Your task to perform on an android device: Search for sushi restaurants on Maps Image 0: 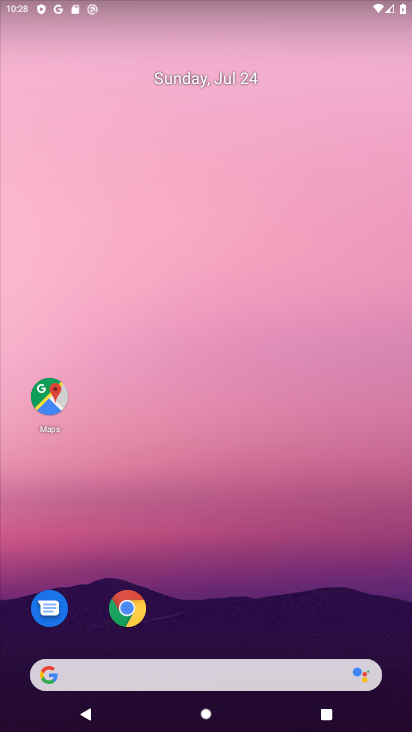
Step 0: click (40, 396)
Your task to perform on an android device: Search for sushi restaurants on Maps Image 1: 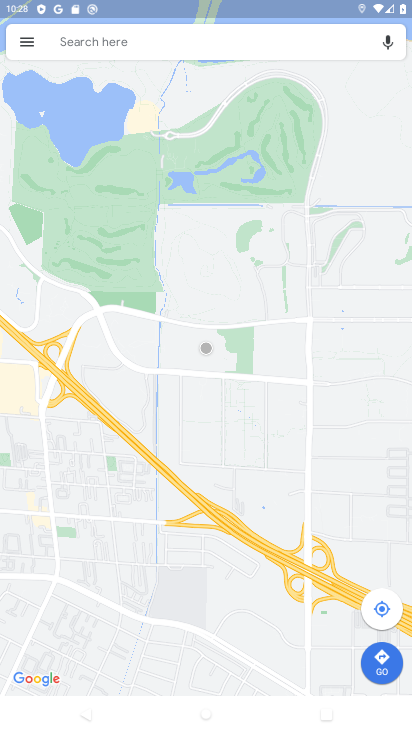
Step 1: click (101, 42)
Your task to perform on an android device: Search for sushi restaurants on Maps Image 2: 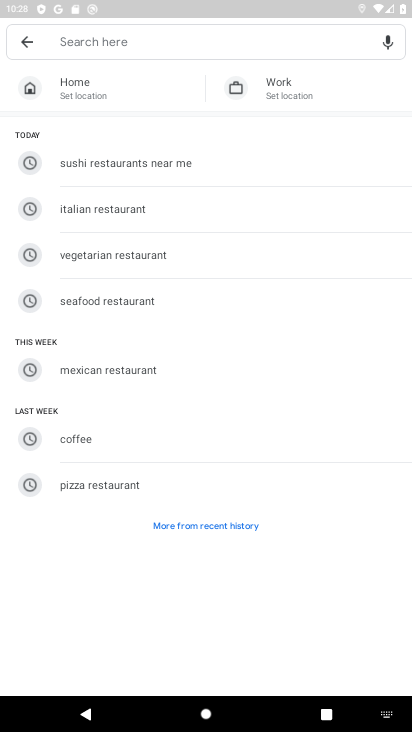
Step 2: click (105, 171)
Your task to perform on an android device: Search for sushi restaurants on Maps Image 3: 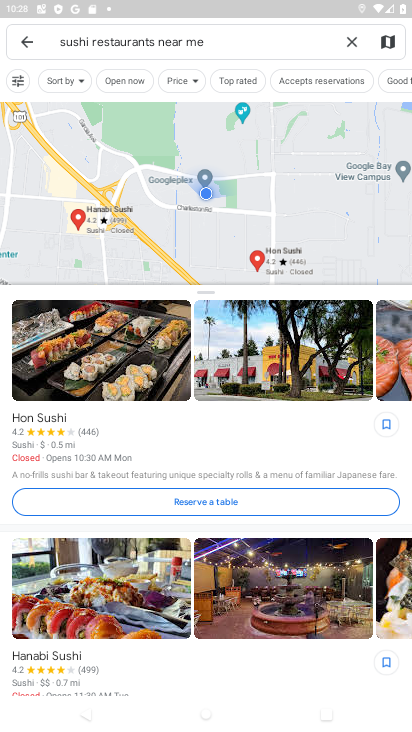
Step 3: task complete